Your task to perform on an android device: find snoozed emails in the gmail app Image 0: 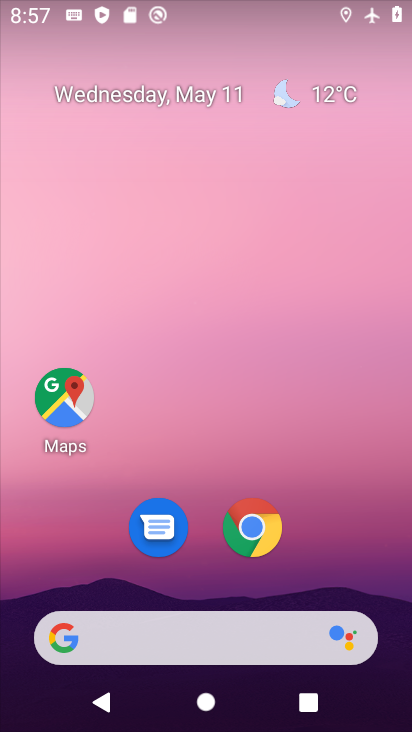
Step 0: drag from (331, 540) to (305, 114)
Your task to perform on an android device: find snoozed emails in the gmail app Image 1: 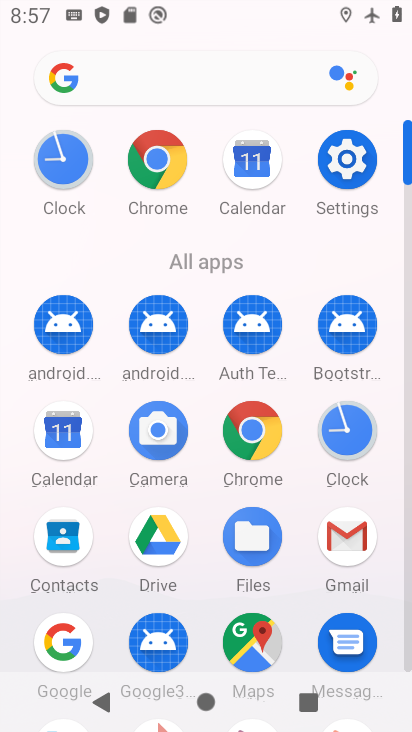
Step 1: click (359, 549)
Your task to perform on an android device: find snoozed emails in the gmail app Image 2: 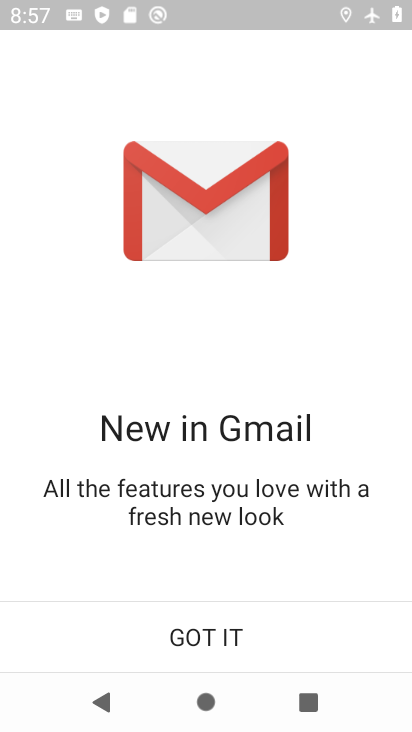
Step 2: click (213, 647)
Your task to perform on an android device: find snoozed emails in the gmail app Image 3: 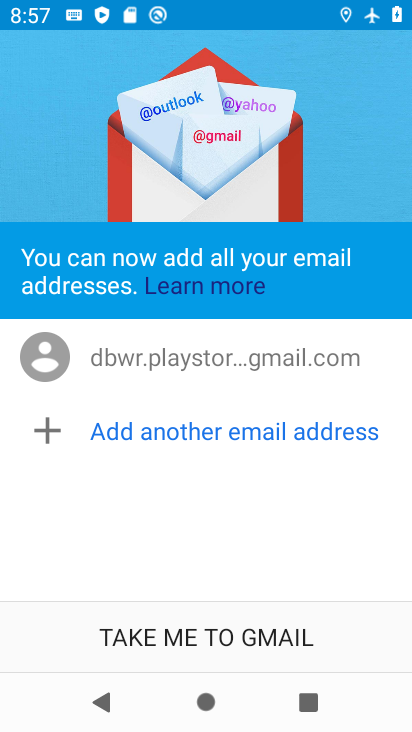
Step 3: click (228, 612)
Your task to perform on an android device: find snoozed emails in the gmail app Image 4: 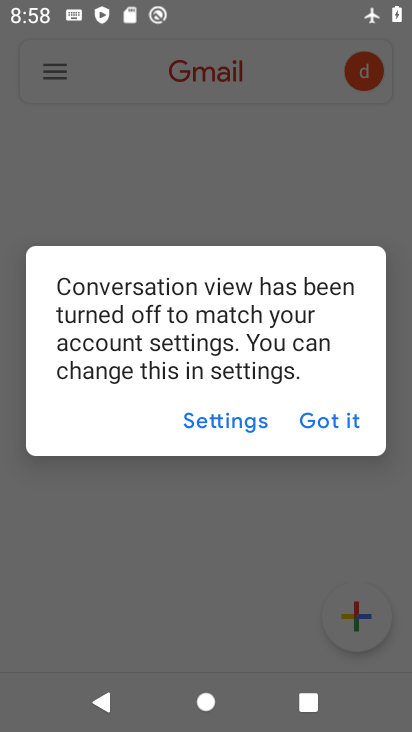
Step 4: click (342, 418)
Your task to perform on an android device: find snoozed emails in the gmail app Image 5: 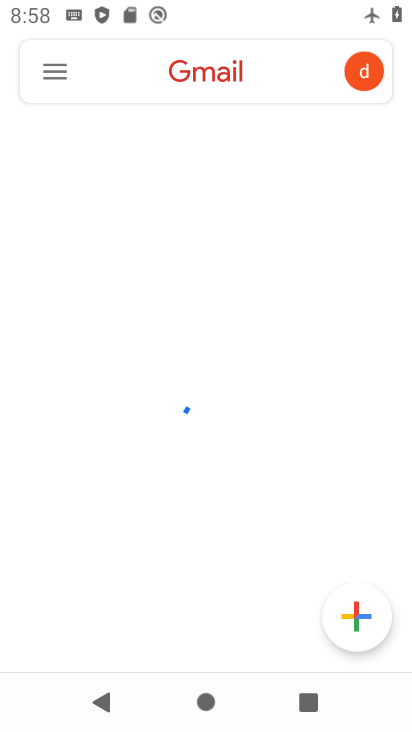
Step 5: click (49, 70)
Your task to perform on an android device: find snoozed emails in the gmail app Image 6: 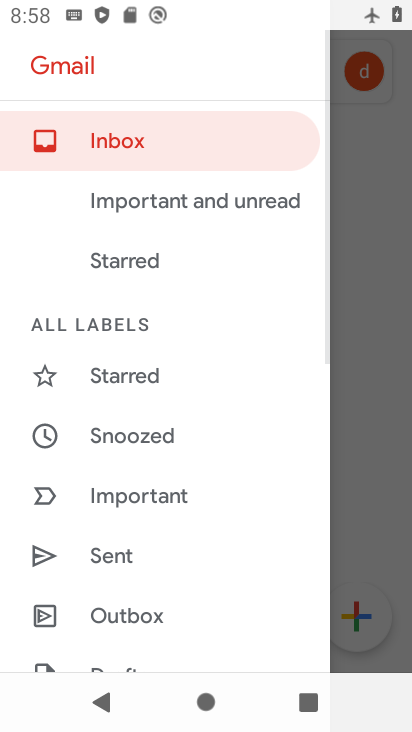
Step 6: drag from (224, 596) to (225, 499)
Your task to perform on an android device: find snoozed emails in the gmail app Image 7: 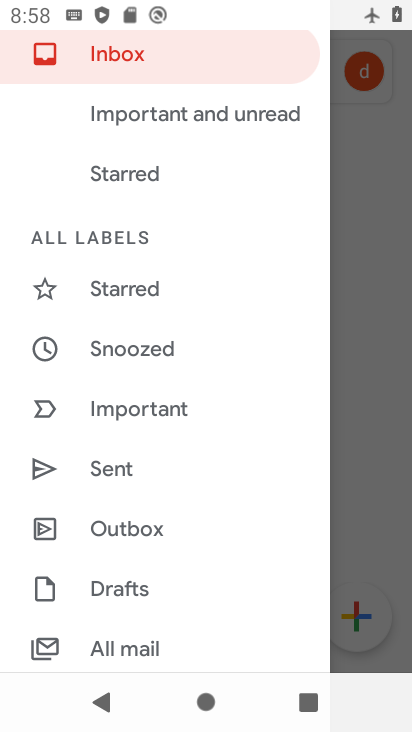
Step 7: click (153, 353)
Your task to perform on an android device: find snoozed emails in the gmail app Image 8: 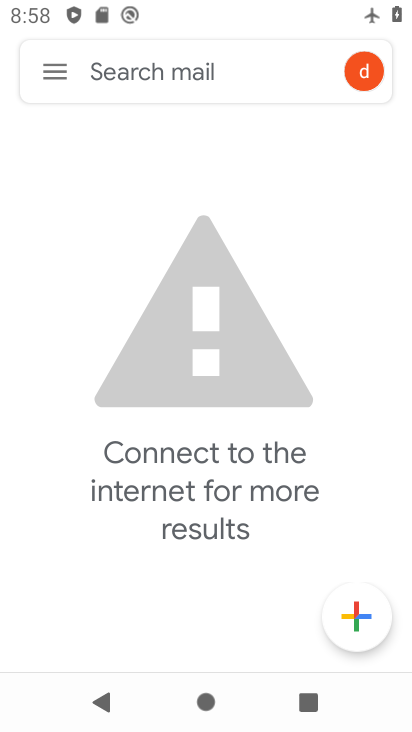
Step 8: task complete